Your task to perform on an android device: Go to display settings Image 0: 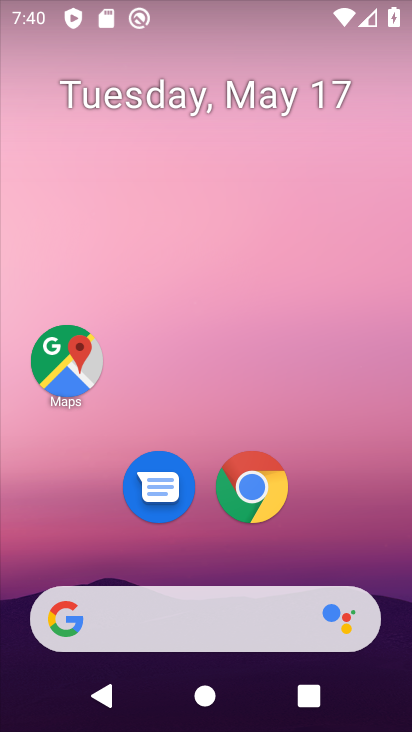
Step 0: drag from (292, 563) to (322, 116)
Your task to perform on an android device: Go to display settings Image 1: 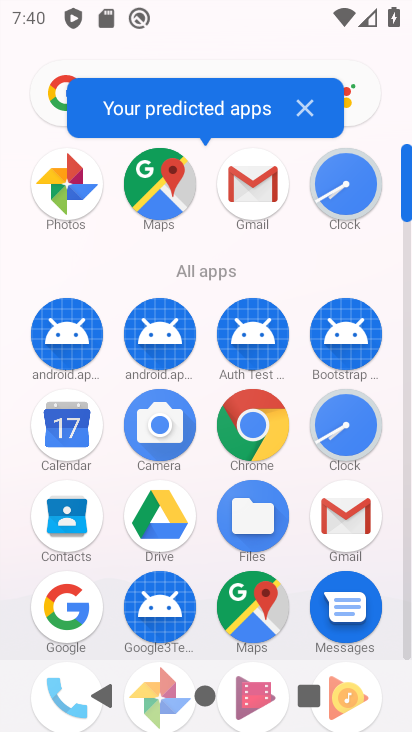
Step 1: drag from (173, 554) to (230, 195)
Your task to perform on an android device: Go to display settings Image 2: 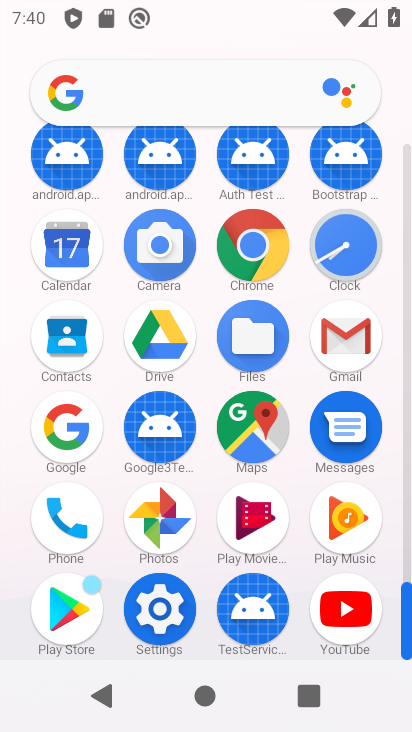
Step 2: click (159, 611)
Your task to perform on an android device: Go to display settings Image 3: 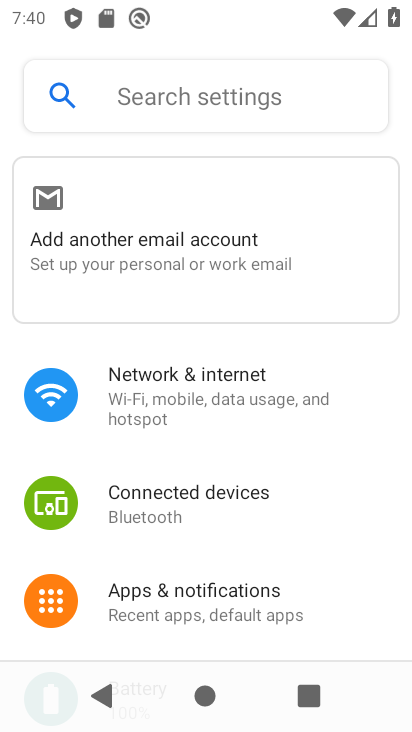
Step 3: drag from (156, 596) to (223, 147)
Your task to perform on an android device: Go to display settings Image 4: 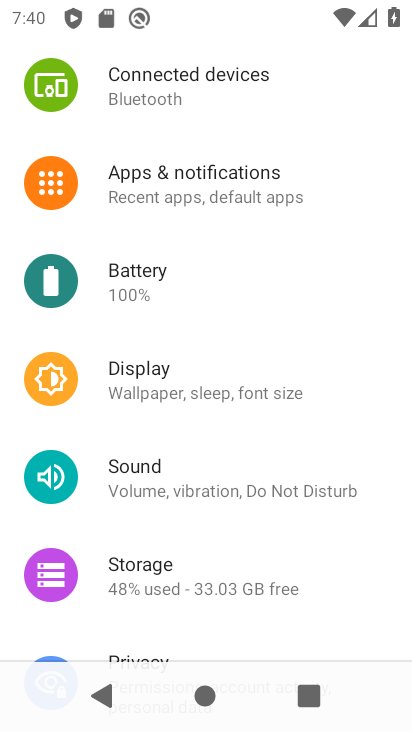
Step 4: click (187, 386)
Your task to perform on an android device: Go to display settings Image 5: 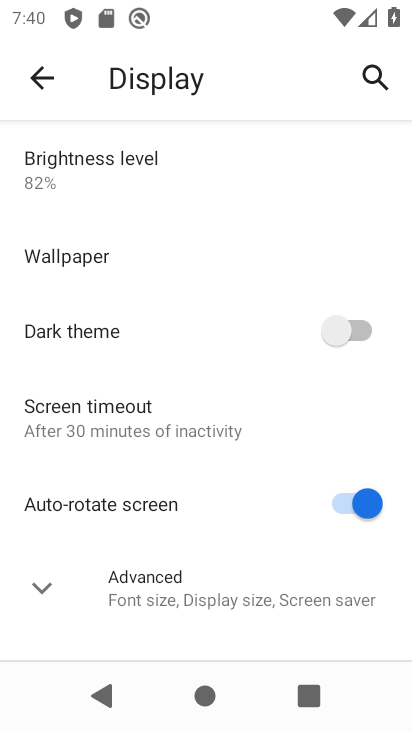
Step 5: task complete